Your task to perform on an android device: What's the weather today? Image 0: 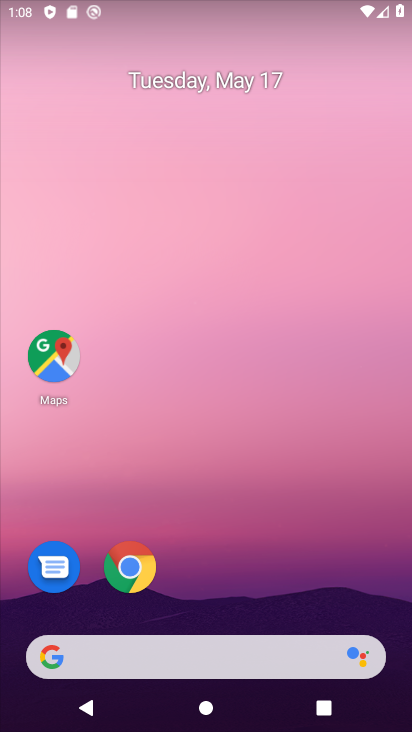
Step 0: drag from (0, 119) to (410, 197)
Your task to perform on an android device: What's the weather today? Image 1: 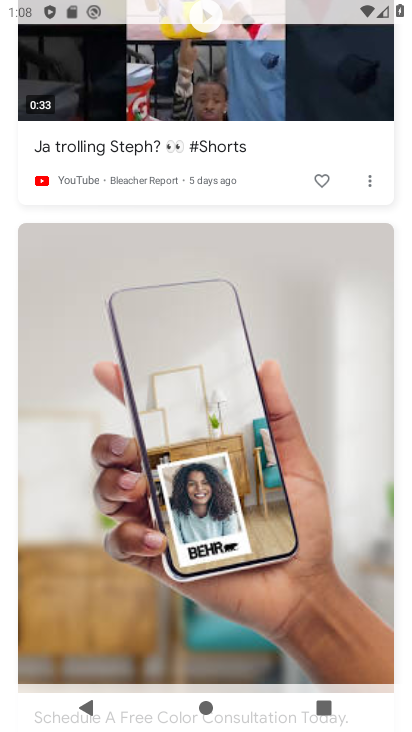
Step 1: drag from (284, 134) to (263, 463)
Your task to perform on an android device: What's the weather today? Image 2: 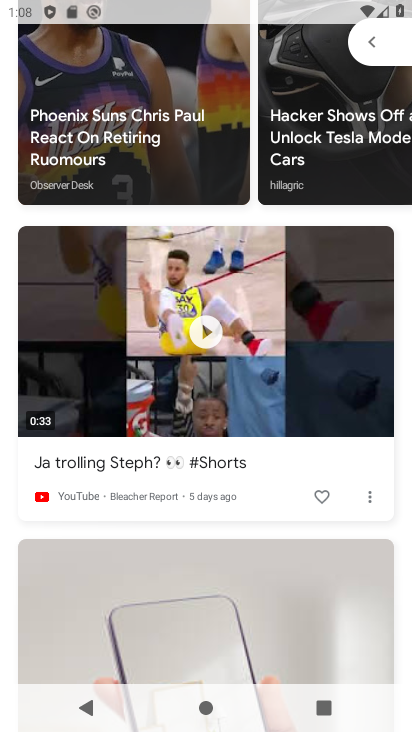
Step 2: drag from (269, 187) to (250, 494)
Your task to perform on an android device: What's the weather today? Image 3: 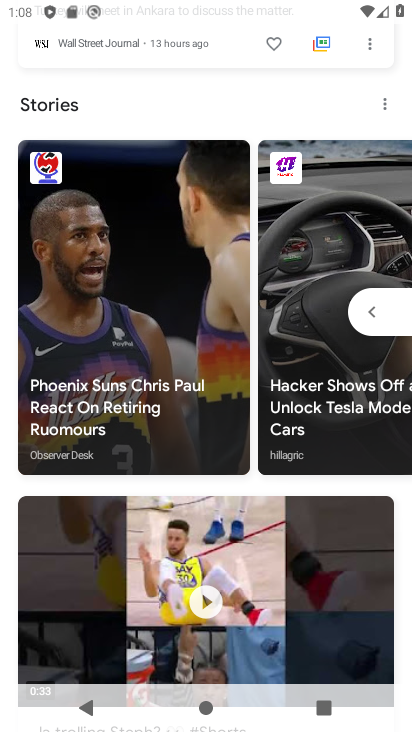
Step 3: drag from (248, 103) to (245, 433)
Your task to perform on an android device: What's the weather today? Image 4: 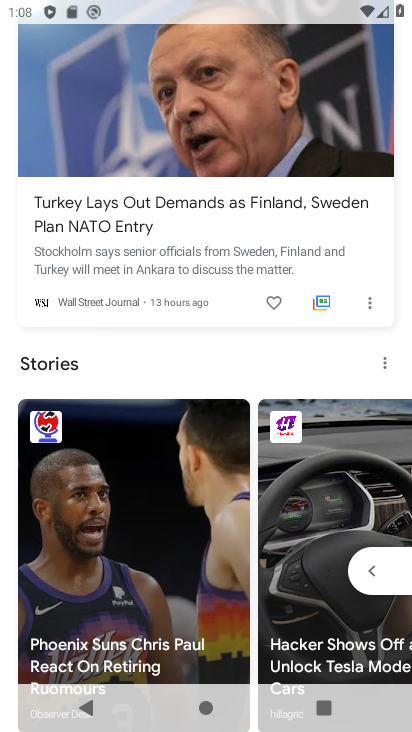
Step 4: drag from (242, 202) to (243, 600)
Your task to perform on an android device: What's the weather today? Image 5: 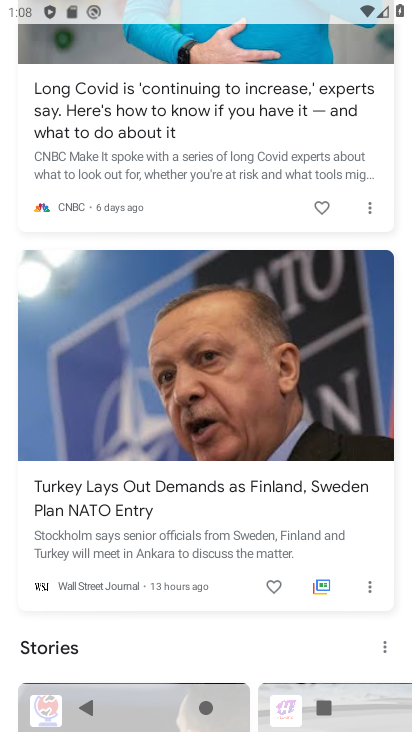
Step 5: drag from (255, 142) to (254, 562)
Your task to perform on an android device: What's the weather today? Image 6: 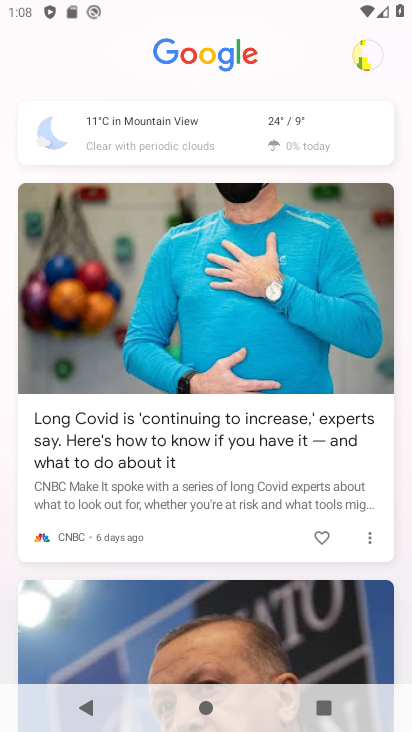
Step 6: click (285, 128)
Your task to perform on an android device: What's the weather today? Image 7: 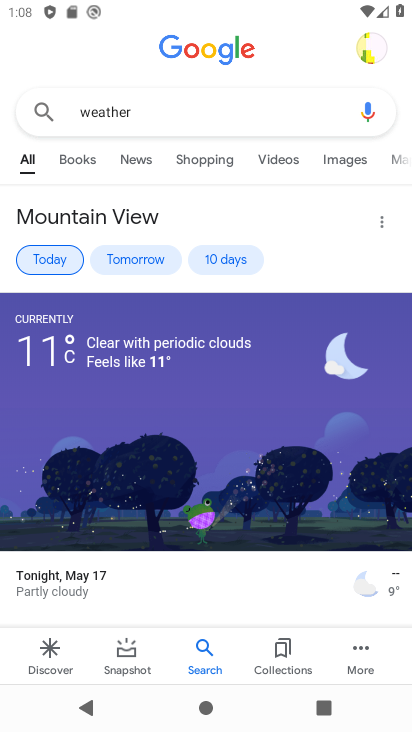
Step 7: task complete